Your task to perform on an android device: turn notification dots on Image 0: 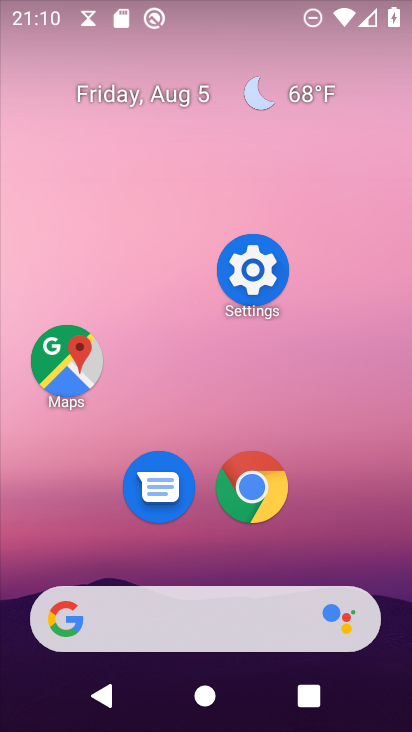
Step 0: click (250, 270)
Your task to perform on an android device: turn notification dots on Image 1: 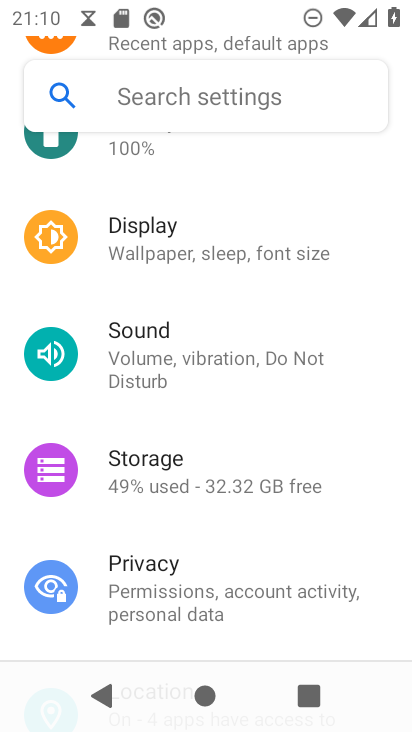
Step 1: drag from (322, 178) to (289, 517)
Your task to perform on an android device: turn notification dots on Image 2: 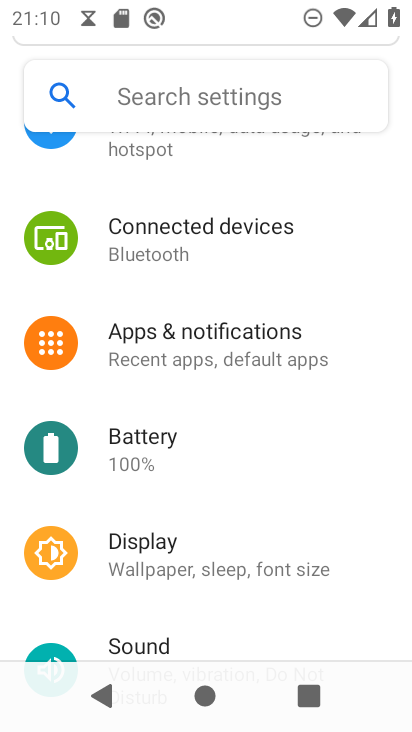
Step 2: click (205, 350)
Your task to perform on an android device: turn notification dots on Image 3: 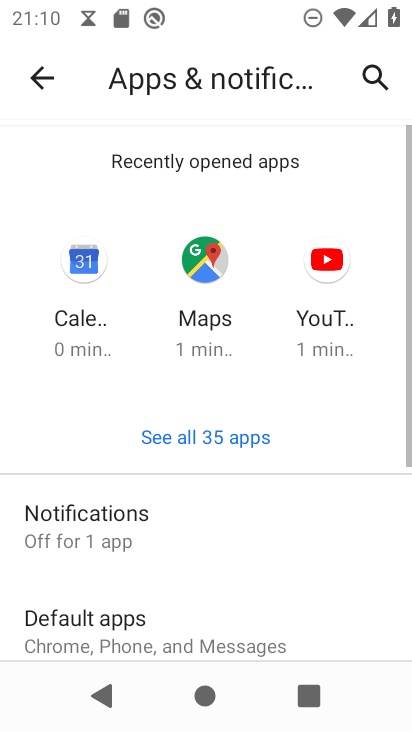
Step 3: click (107, 526)
Your task to perform on an android device: turn notification dots on Image 4: 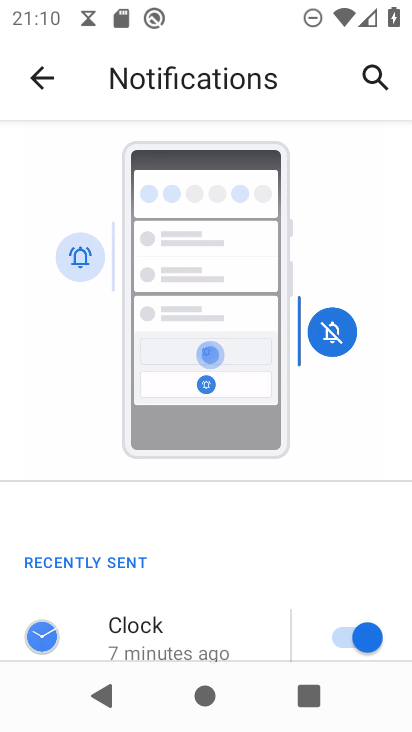
Step 4: drag from (252, 592) to (344, 58)
Your task to perform on an android device: turn notification dots on Image 5: 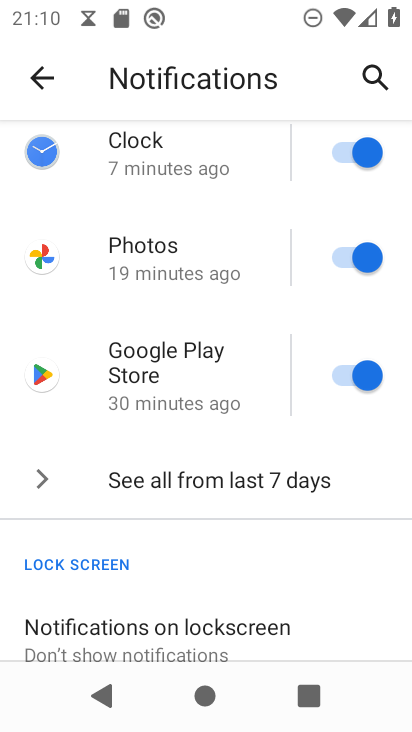
Step 5: drag from (257, 526) to (277, 290)
Your task to perform on an android device: turn notification dots on Image 6: 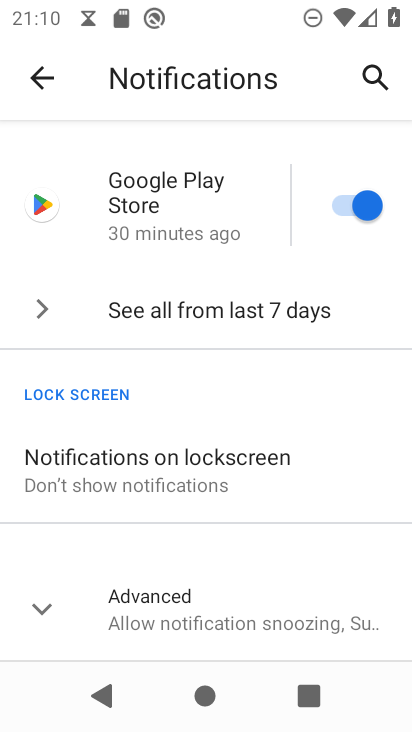
Step 6: click (163, 601)
Your task to perform on an android device: turn notification dots on Image 7: 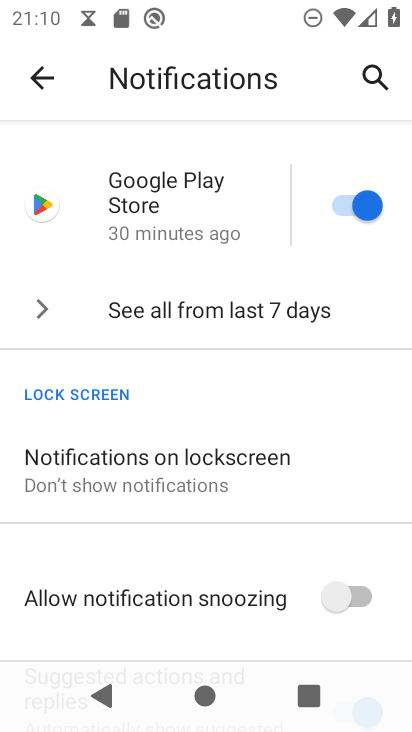
Step 7: task complete